Your task to perform on an android device: show emergency info Image 0: 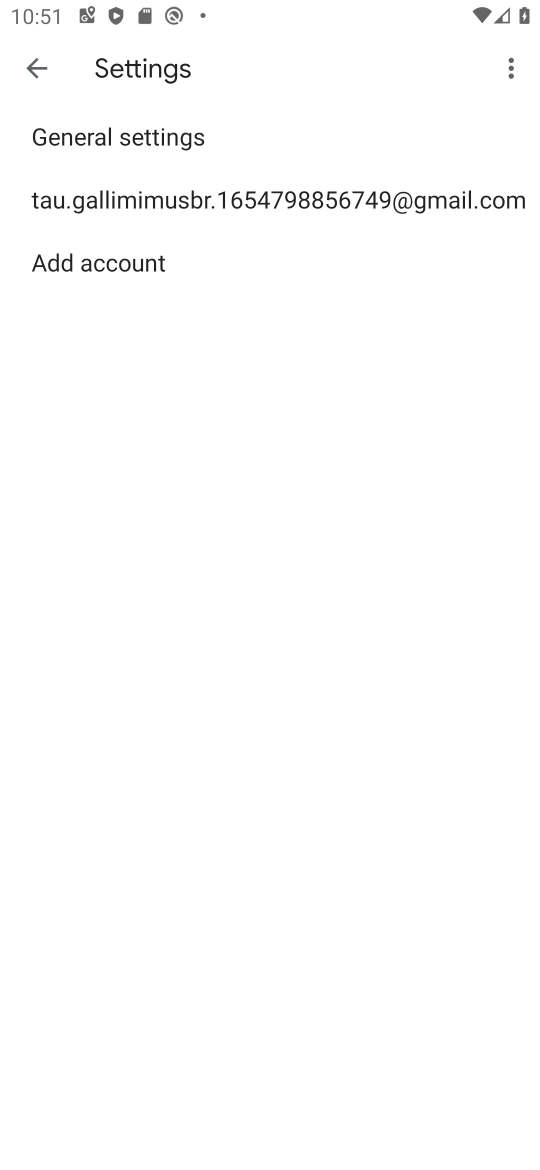
Step 0: press home button
Your task to perform on an android device: show emergency info Image 1: 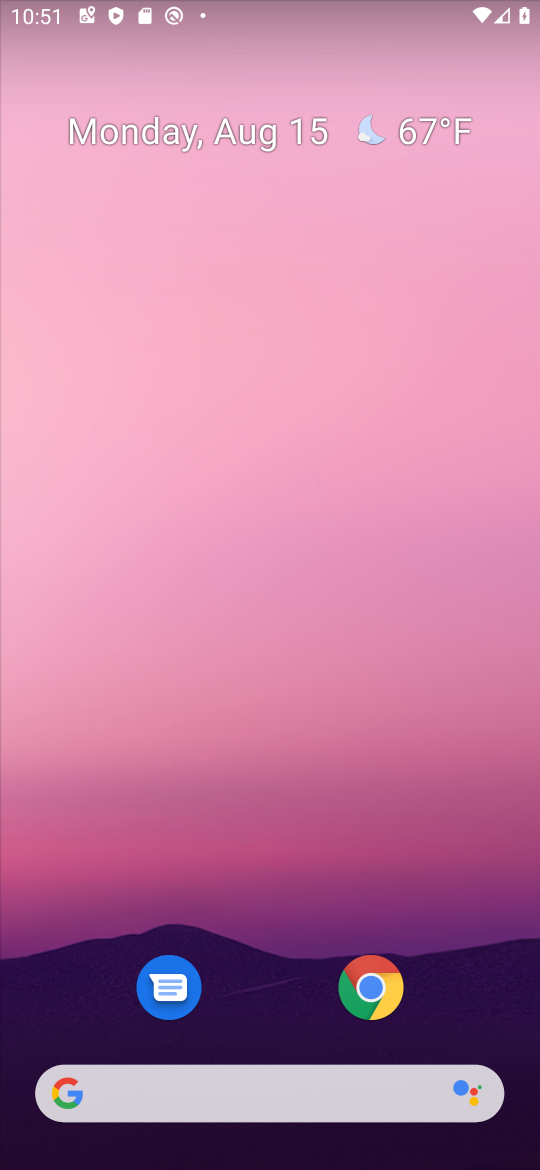
Step 1: drag from (276, 1032) to (175, 5)
Your task to perform on an android device: show emergency info Image 2: 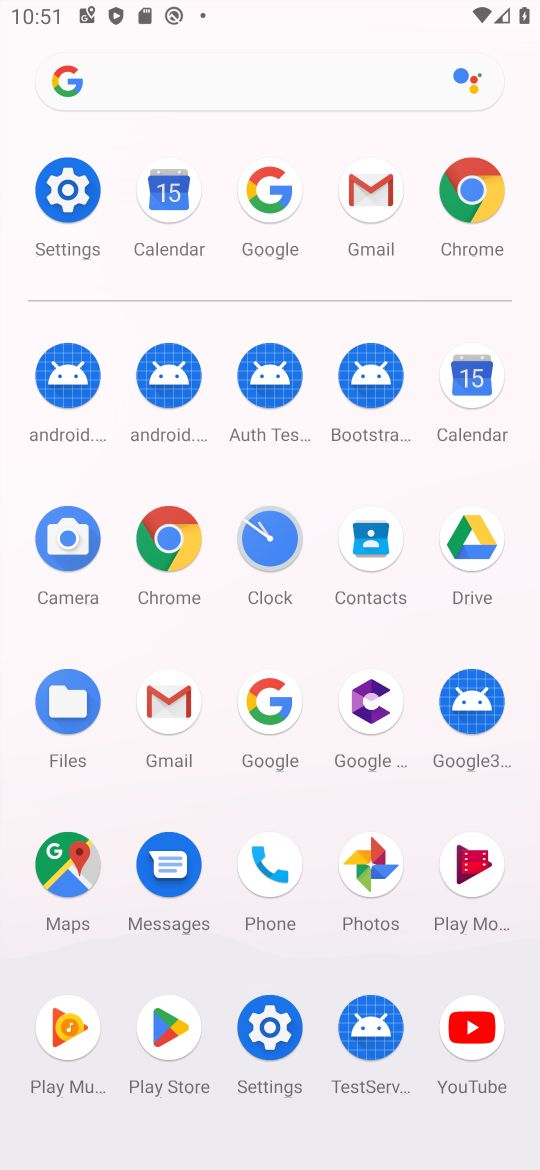
Step 2: click (60, 212)
Your task to perform on an android device: show emergency info Image 3: 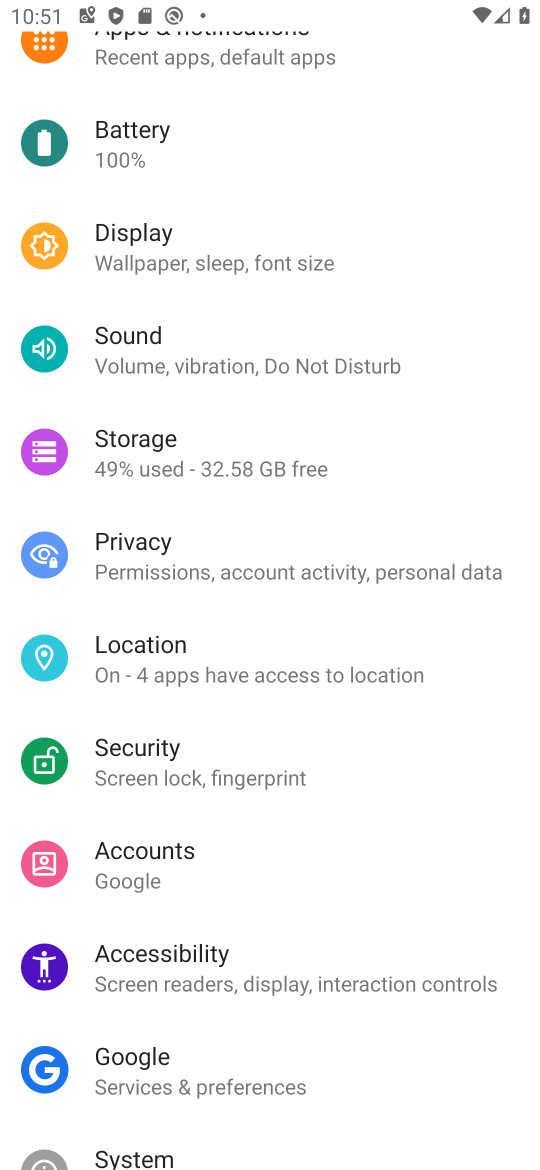
Step 3: drag from (397, 1038) to (363, 310)
Your task to perform on an android device: show emergency info Image 4: 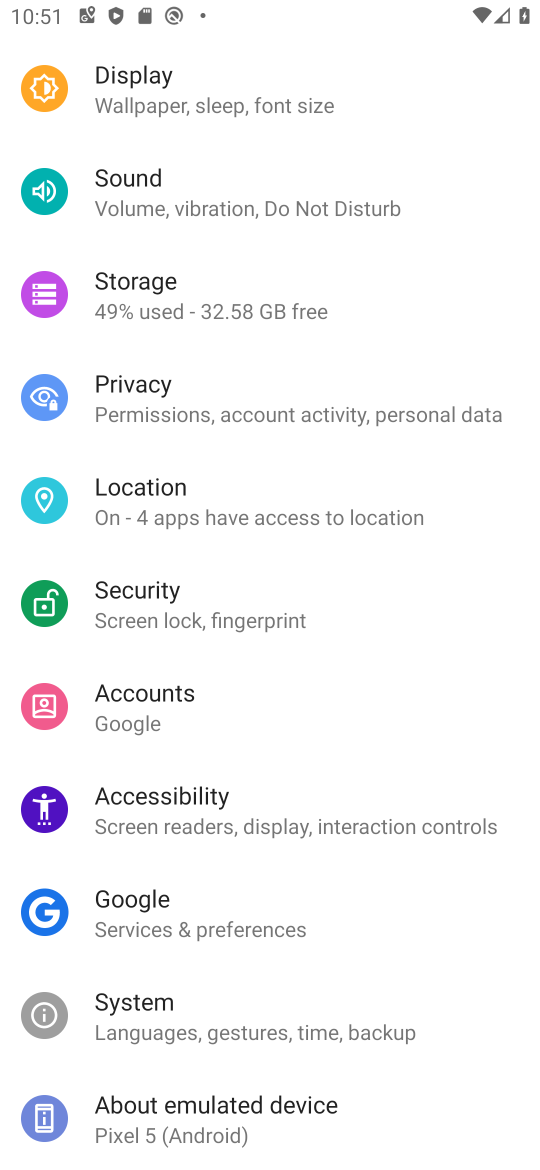
Step 4: click (196, 1107)
Your task to perform on an android device: show emergency info Image 5: 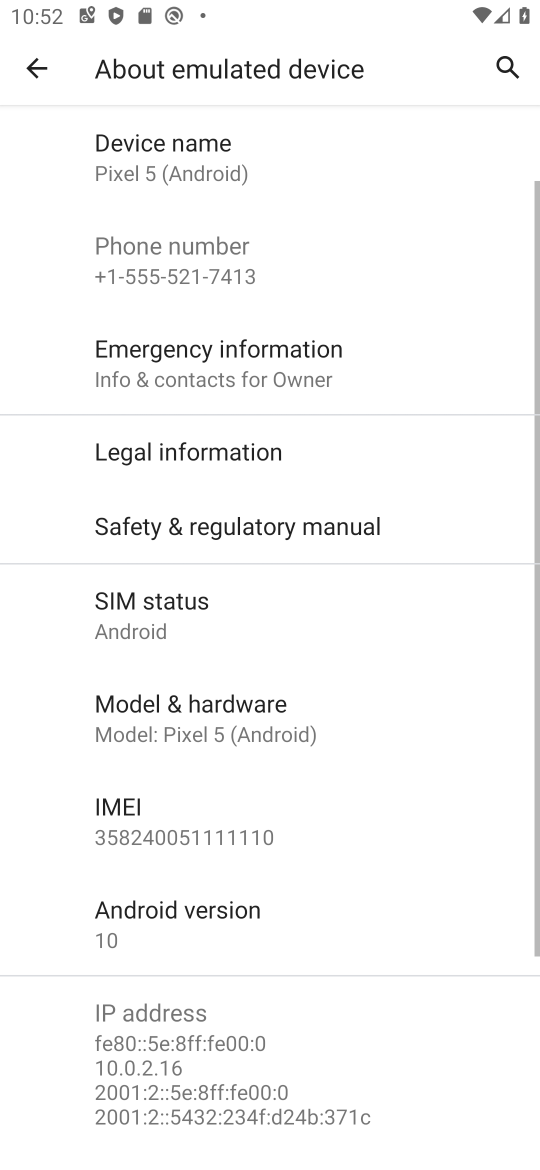
Step 5: click (160, 381)
Your task to perform on an android device: show emergency info Image 6: 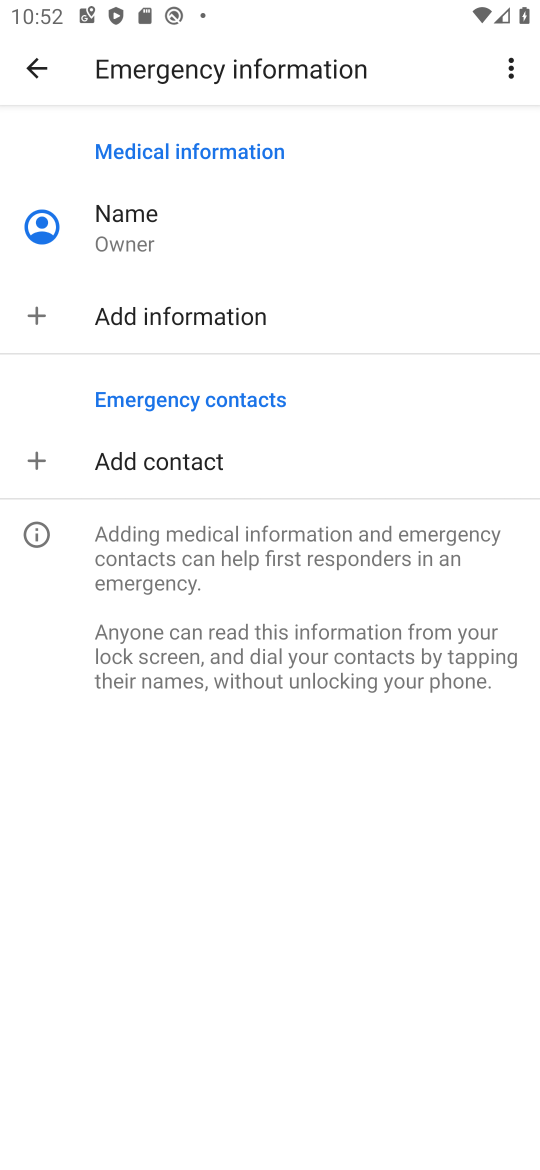
Step 6: task complete